Your task to perform on an android device: Is it going to rain today? Image 0: 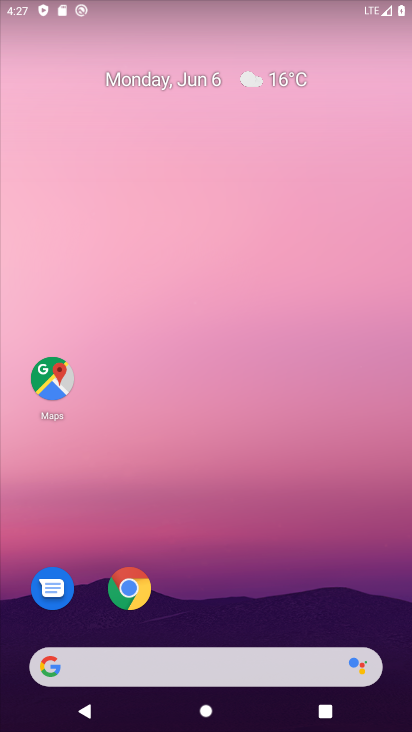
Step 0: drag from (231, 616) to (224, 152)
Your task to perform on an android device: Is it going to rain today? Image 1: 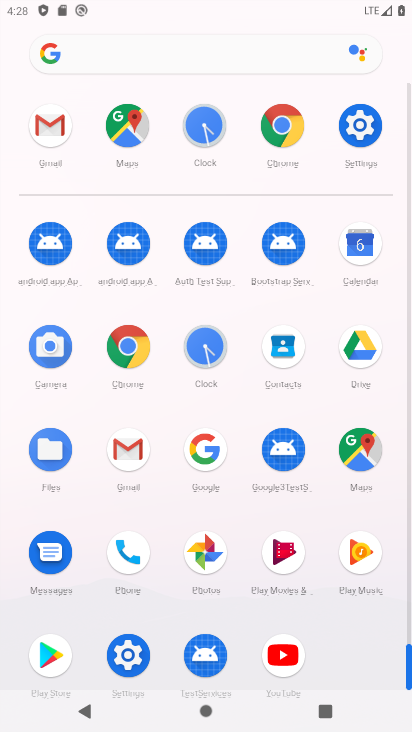
Step 1: press back button
Your task to perform on an android device: Is it going to rain today? Image 2: 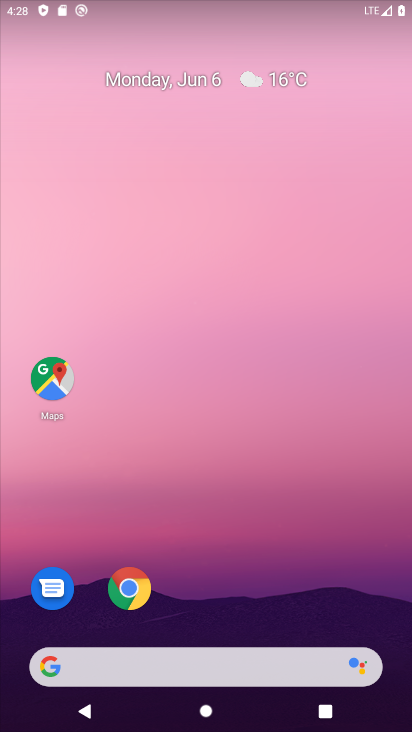
Step 2: drag from (11, 263) to (349, 360)
Your task to perform on an android device: Is it going to rain today? Image 3: 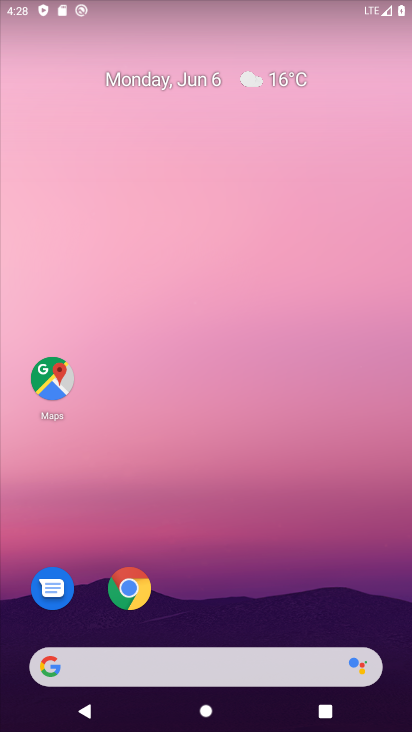
Step 3: drag from (41, 181) to (402, 318)
Your task to perform on an android device: Is it going to rain today? Image 4: 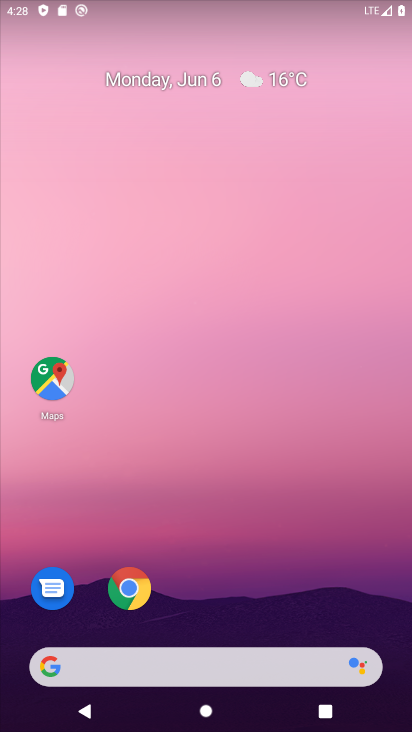
Step 4: drag from (97, 322) to (373, 511)
Your task to perform on an android device: Is it going to rain today? Image 5: 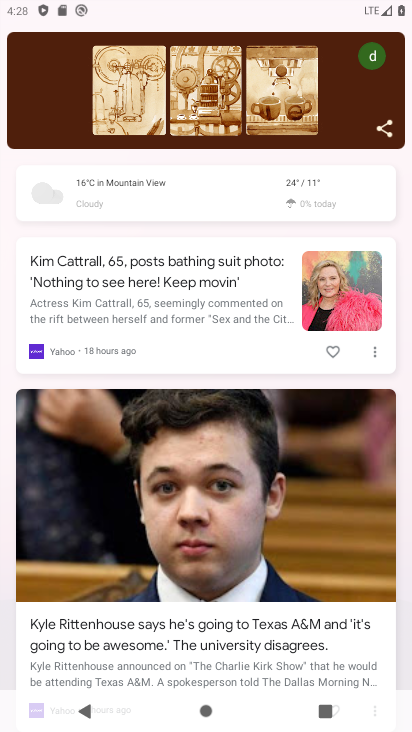
Step 5: drag from (165, 223) to (222, 525)
Your task to perform on an android device: Is it going to rain today? Image 6: 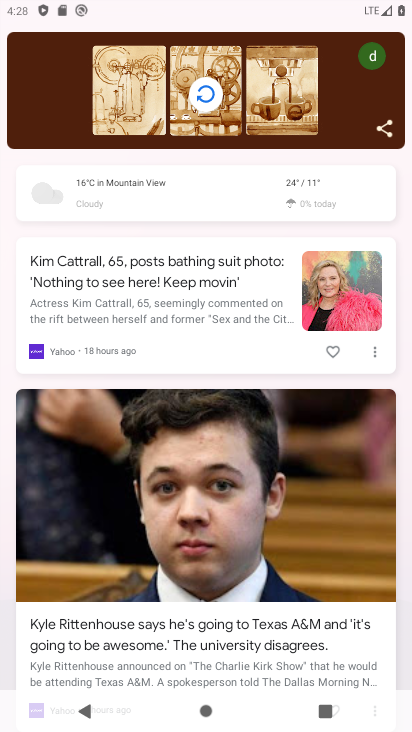
Step 6: click (178, 623)
Your task to perform on an android device: Is it going to rain today? Image 7: 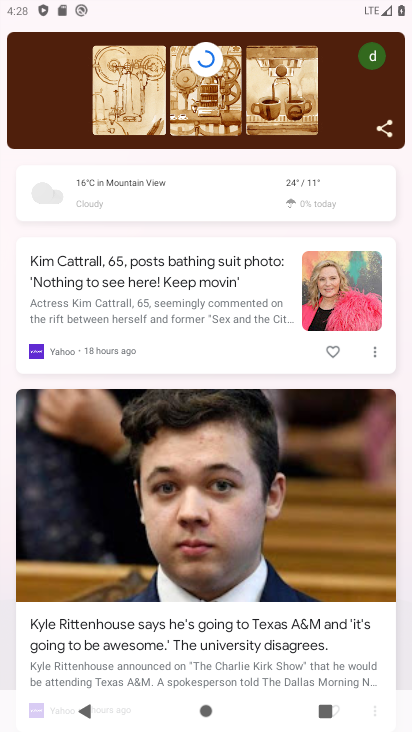
Step 7: drag from (152, 247) to (234, 640)
Your task to perform on an android device: Is it going to rain today? Image 8: 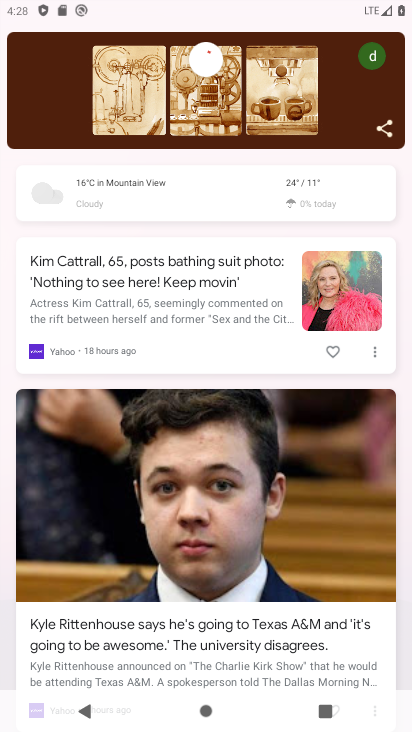
Step 8: drag from (195, 284) to (208, 693)
Your task to perform on an android device: Is it going to rain today? Image 9: 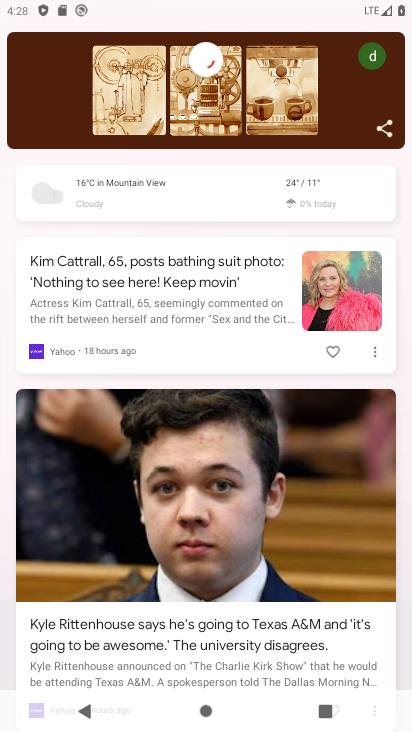
Step 9: click (185, 187)
Your task to perform on an android device: Is it going to rain today? Image 10: 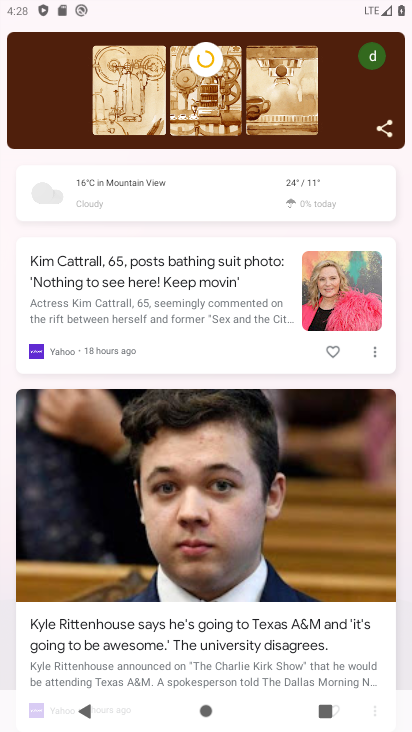
Step 10: click (185, 187)
Your task to perform on an android device: Is it going to rain today? Image 11: 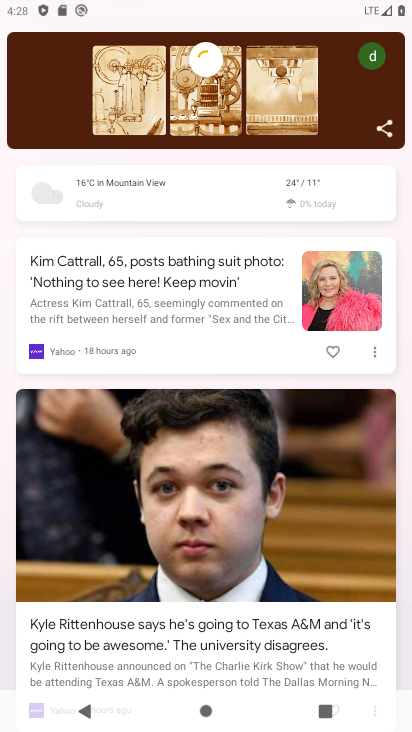
Step 11: click (187, 192)
Your task to perform on an android device: Is it going to rain today? Image 12: 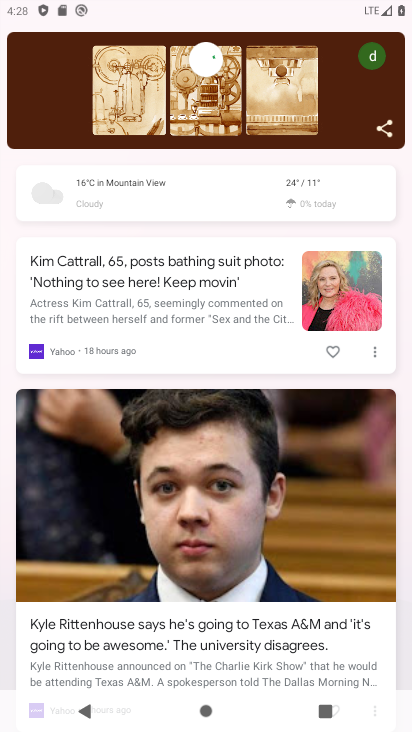
Step 12: click (188, 195)
Your task to perform on an android device: Is it going to rain today? Image 13: 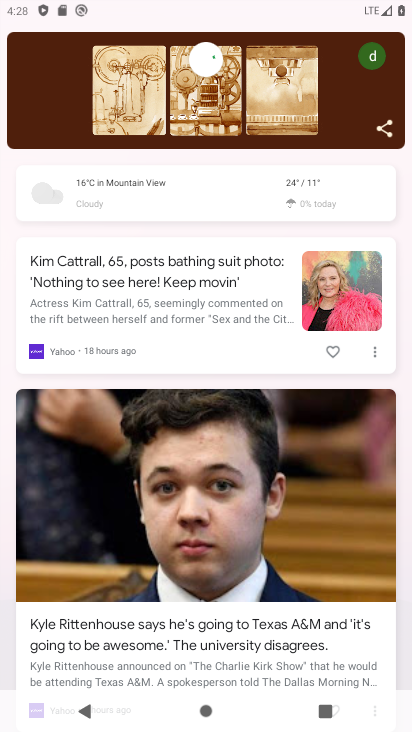
Step 13: click (190, 196)
Your task to perform on an android device: Is it going to rain today? Image 14: 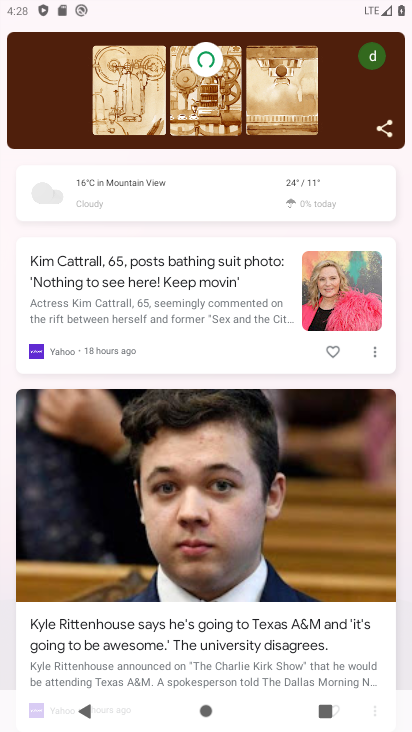
Step 14: click (192, 196)
Your task to perform on an android device: Is it going to rain today? Image 15: 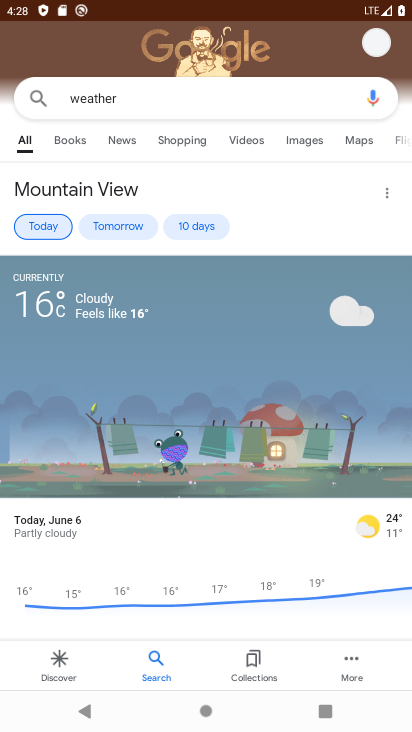
Step 15: task complete